Your task to perform on an android device: turn off improve location accuracy Image 0: 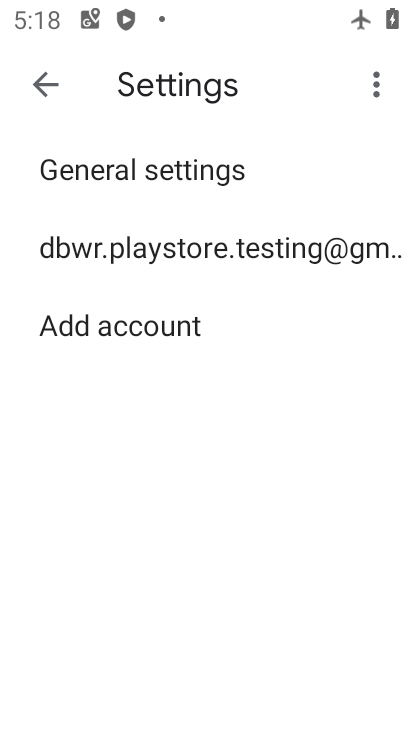
Step 0: press home button
Your task to perform on an android device: turn off improve location accuracy Image 1: 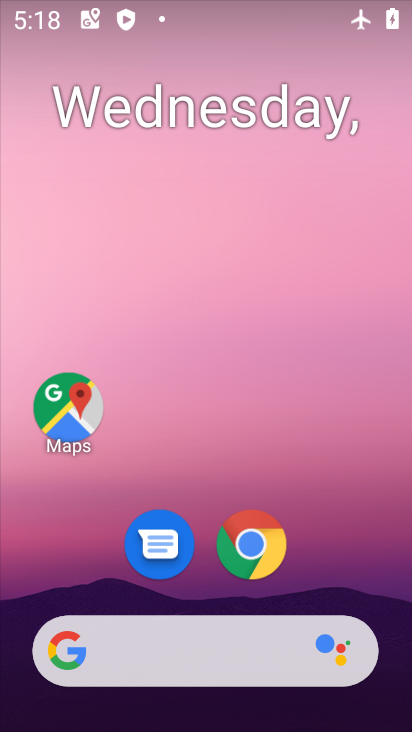
Step 1: drag from (393, 677) to (361, 124)
Your task to perform on an android device: turn off improve location accuracy Image 2: 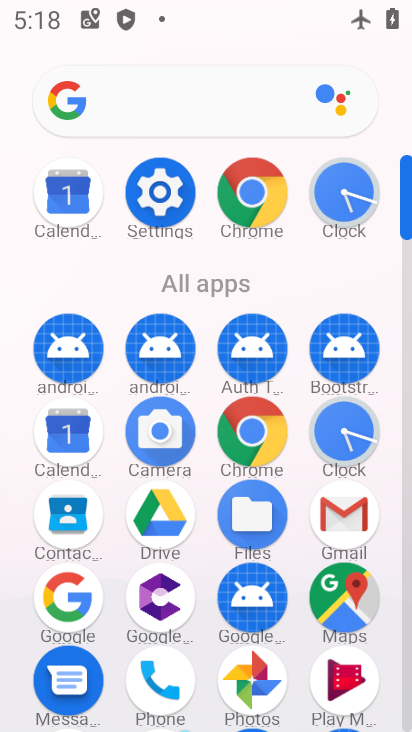
Step 2: click (154, 186)
Your task to perform on an android device: turn off improve location accuracy Image 3: 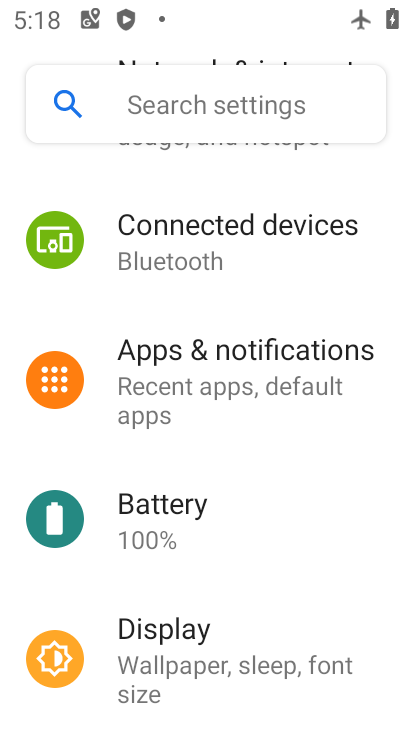
Step 3: drag from (239, 624) to (243, 273)
Your task to perform on an android device: turn off improve location accuracy Image 4: 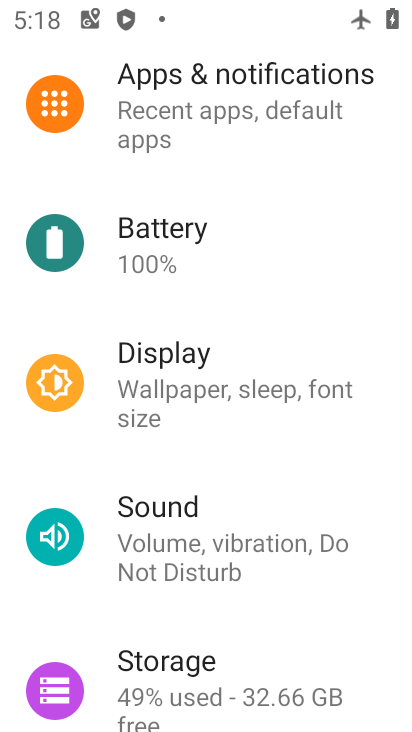
Step 4: drag from (246, 646) to (253, 332)
Your task to perform on an android device: turn off improve location accuracy Image 5: 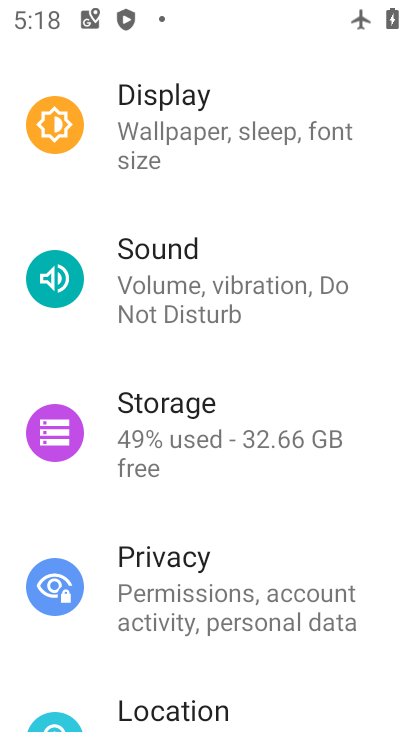
Step 5: click (182, 703)
Your task to perform on an android device: turn off improve location accuracy Image 6: 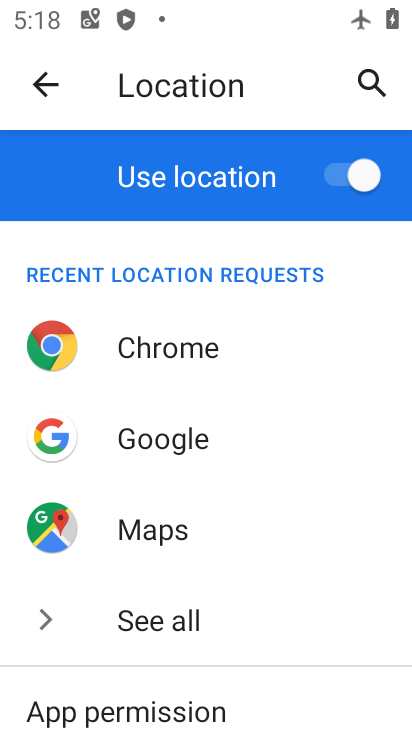
Step 6: drag from (314, 702) to (330, 353)
Your task to perform on an android device: turn off improve location accuracy Image 7: 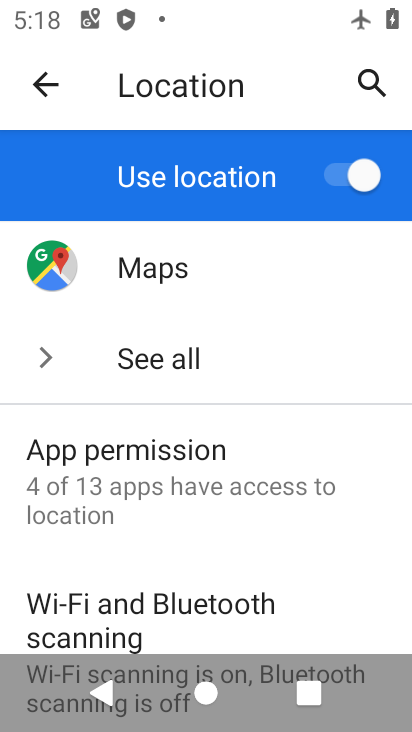
Step 7: drag from (345, 606) to (346, 306)
Your task to perform on an android device: turn off improve location accuracy Image 8: 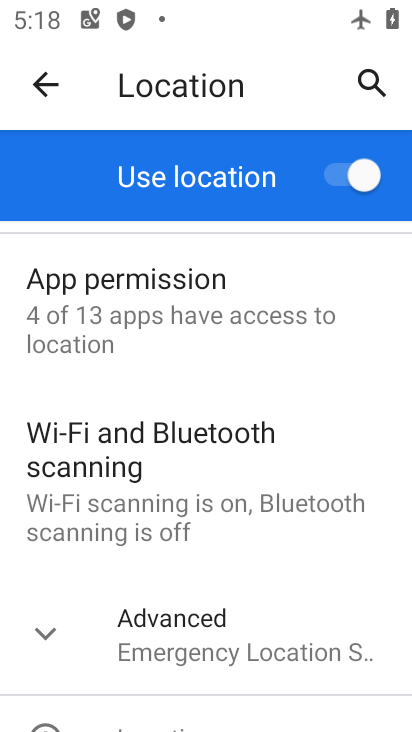
Step 8: drag from (343, 606) to (336, 311)
Your task to perform on an android device: turn off improve location accuracy Image 9: 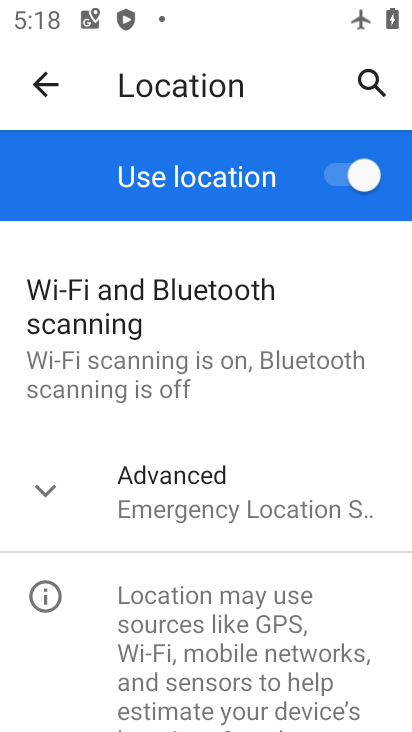
Step 9: click (49, 490)
Your task to perform on an android device: turn off improve location accuracy Image 10: 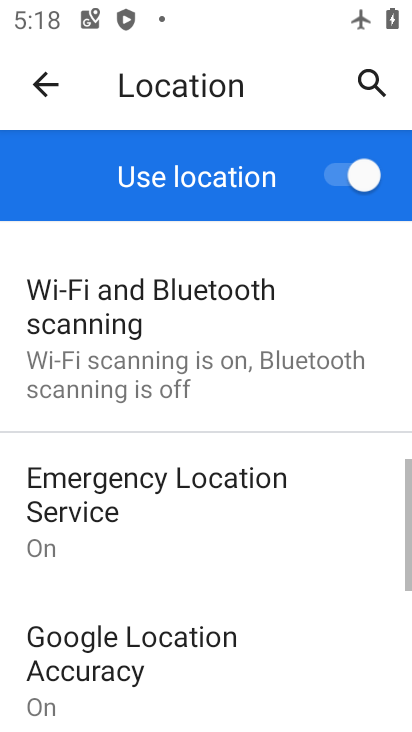
Step 10: drag from (337, 706) to (341, 363)
Your task to perform on an android device: turn off improve location accuracy Image 11: 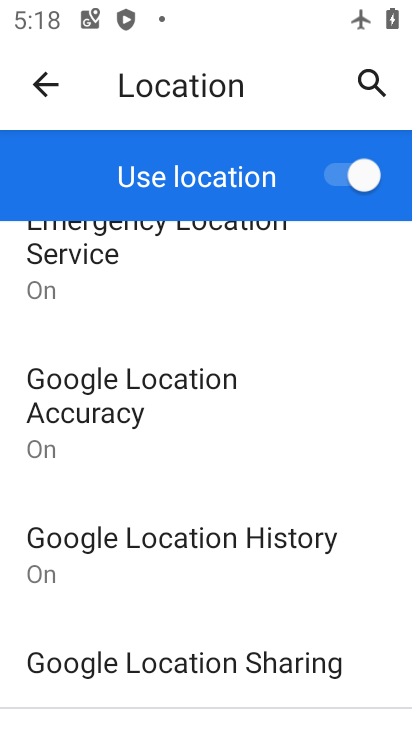
Step 11: click (122, 404)
Your task to perform on an android device: turn off improve location accuracy Image 12: 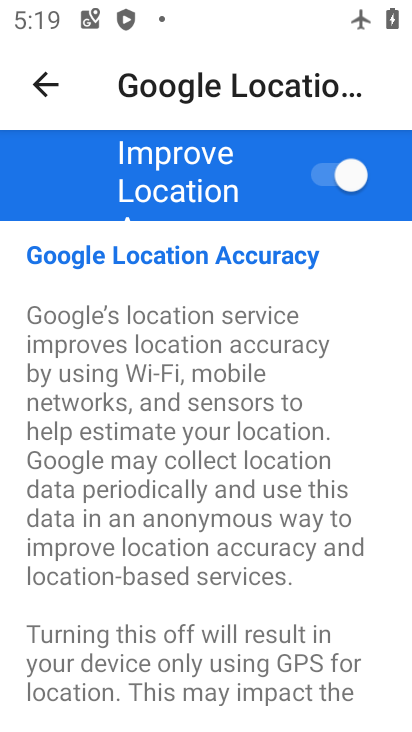
Step 12: click (321, 174)
Your task to perform on an android device: turn off improve location accuracy Image 13: 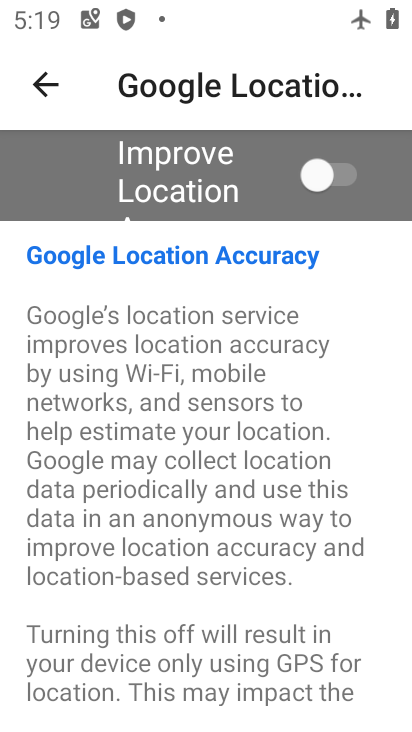
Step 13: task complete